Your task to perform on an android device: toggle translation in the chrome app Image 0: 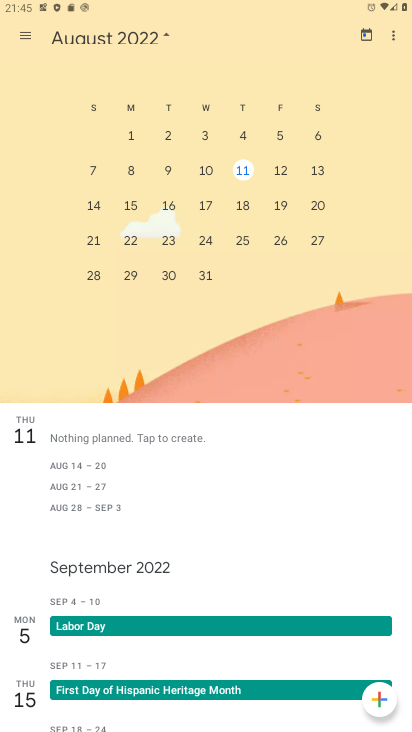
Step 0: press home button
Your task to perform on an android device: toggle translation in the chrome app Image 1: 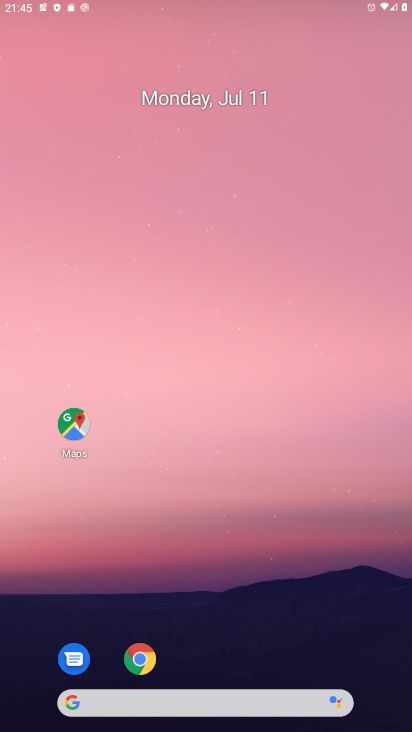
Step 1: drag from (234, 681) to (380, 88)
Your task to perform on an android device: toggle translation in the chrome app Image 2: 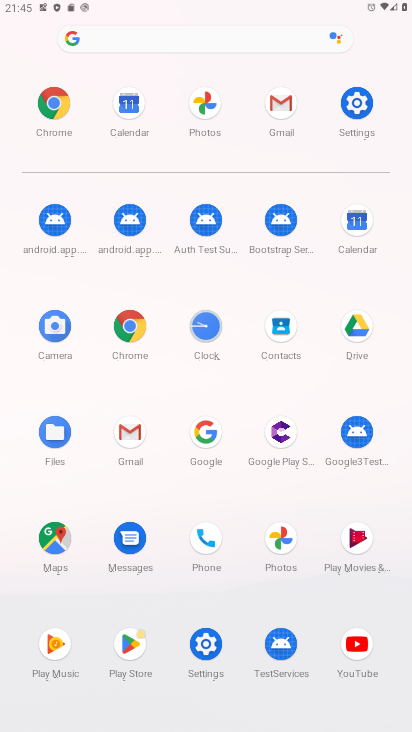
Step 2: click (123, 331)
Your task to perform on an android device: toggle translation in the chrome app Image 3: 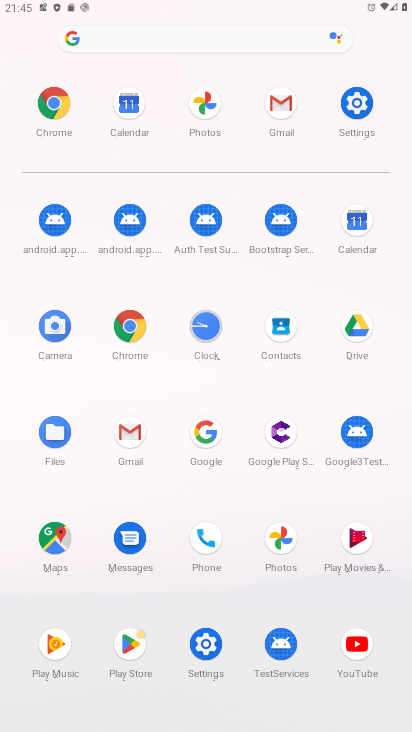
Step 3: click (123, 330)
Your task to perform on an android device: toggle translation in the chrome app Image 4: 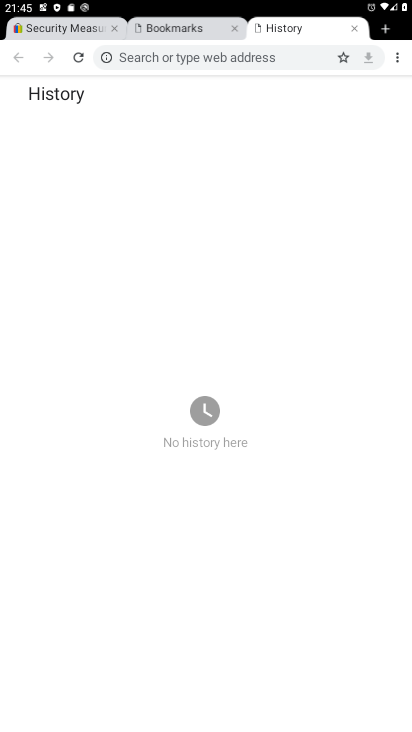
Step 4: drag from (254, 597) to (307, 357)
Your task to perform on an android device: toggle translation in the chrome app Image 5: 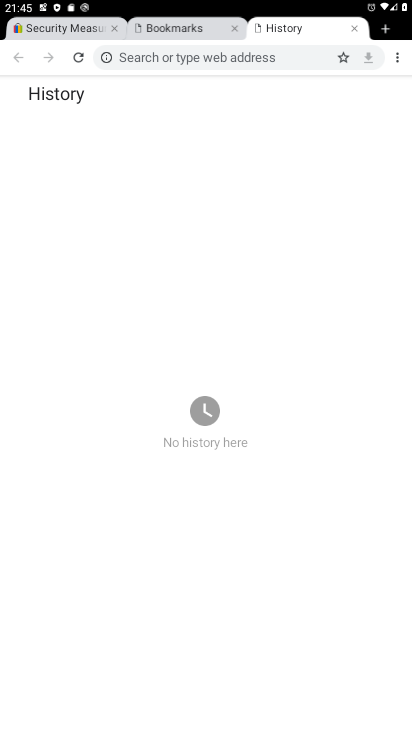
Step 5: click (402, 56)
Your task to perform on an android device: toggle translation in the chrome app Image 6: 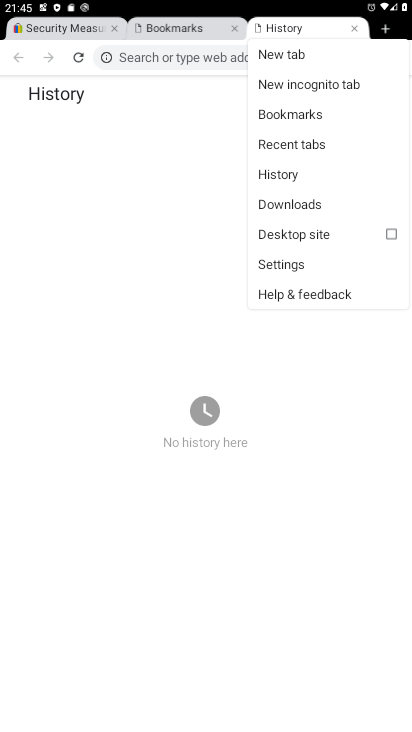
Step 6: click (299, 265)
Your task to perform on an android device: toggle translation in the chrome app Image 7: 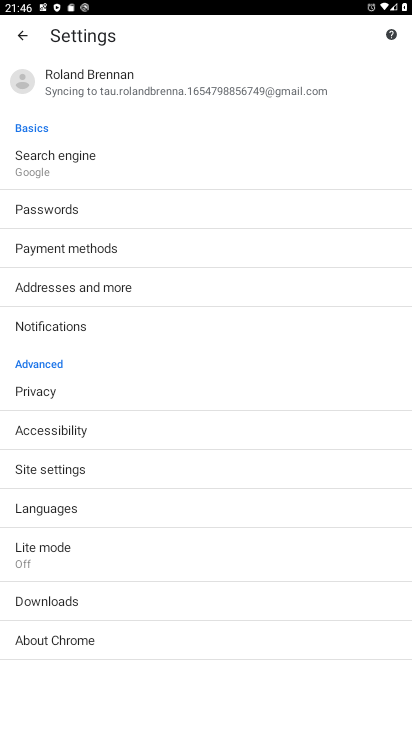
Step 7: drag from (154, 552) to (177, 205)
Your task to perform on an android device: toggle translation in the chrome app Image 8: 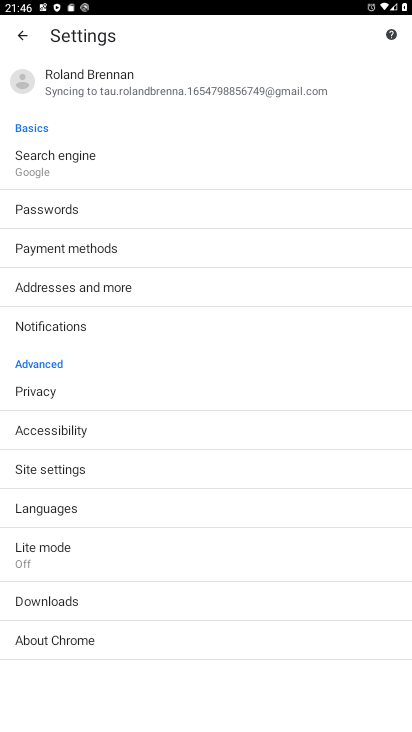
Step 8: click (76, 546)
Your task to perform on an android device: toggle translation in the chrome app Image 9: 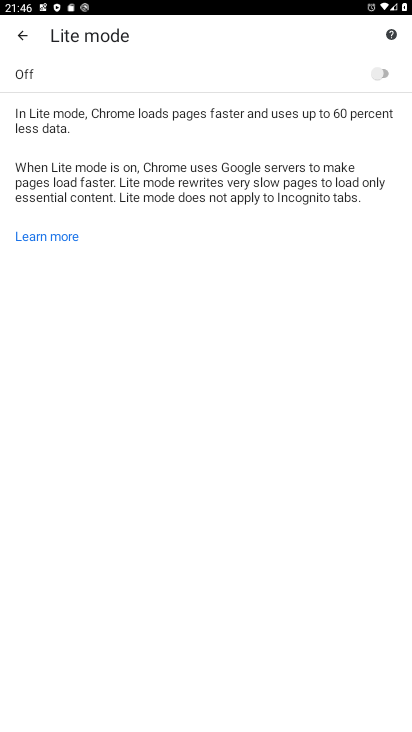
Step 9: click (24, 32)
Your task to perform on an android device: toggle translation in the chrome app Image 10: 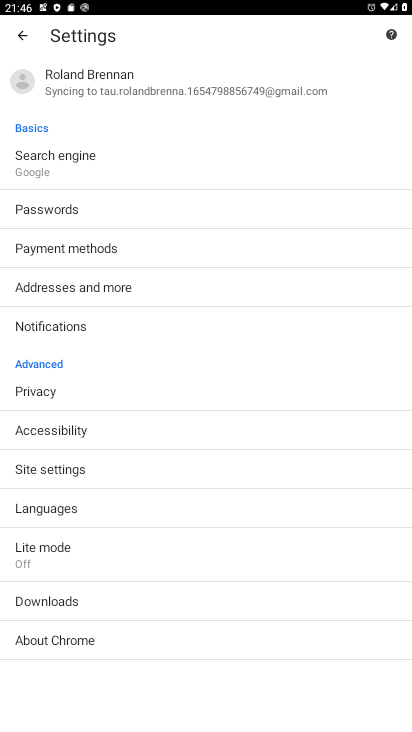
Step 10: click (80, 503)
Your task to perform on an android device: toggle translation in the chrome app Image 11: 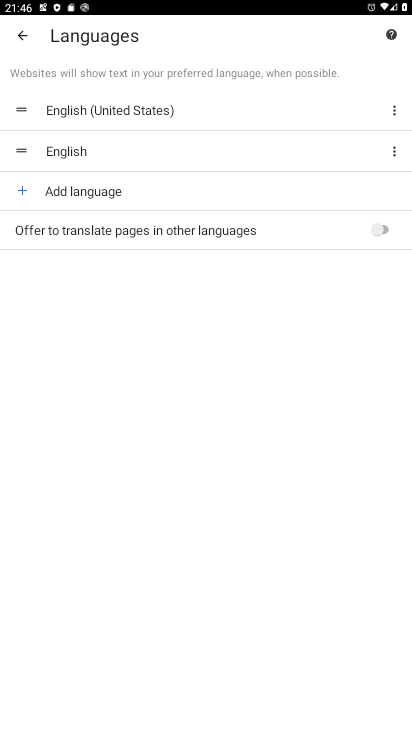
Step 11: click (365, 236)
Your task to perform on an android device: toggle translation in the chrome app Image 12: 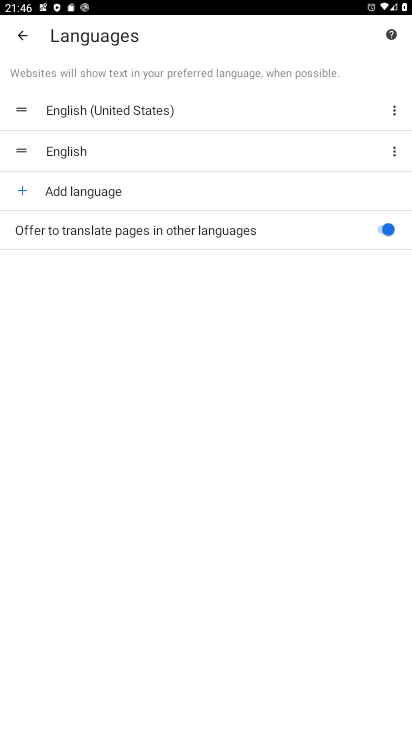
Step 12: task complete